Your task to perform on an android device: toggle improve location accuracy Image 0: 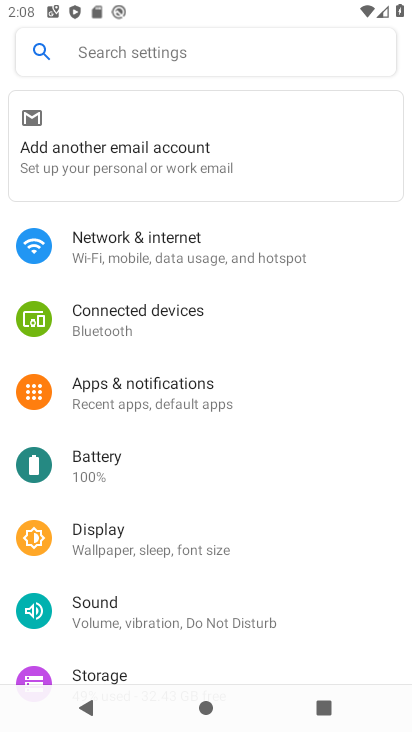
Step 0: drag from (173, 621) to (201, 190)
Your task to perform on an android device: toggle improve location accuracy Image 1: 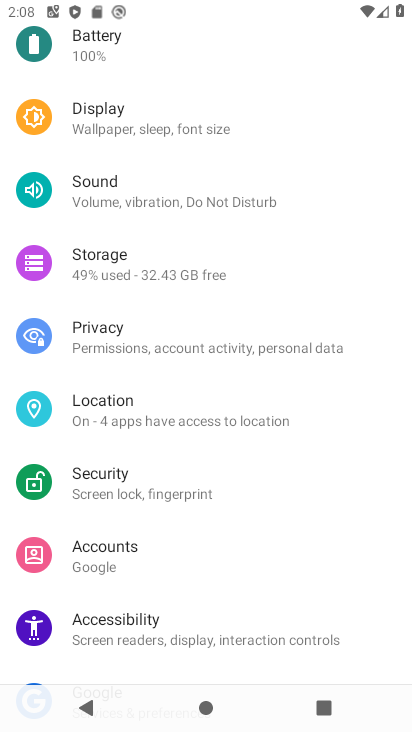
Step 1: click (153, 411)
Your task to perform on an android device: toggle improve location accuracy Image 2: 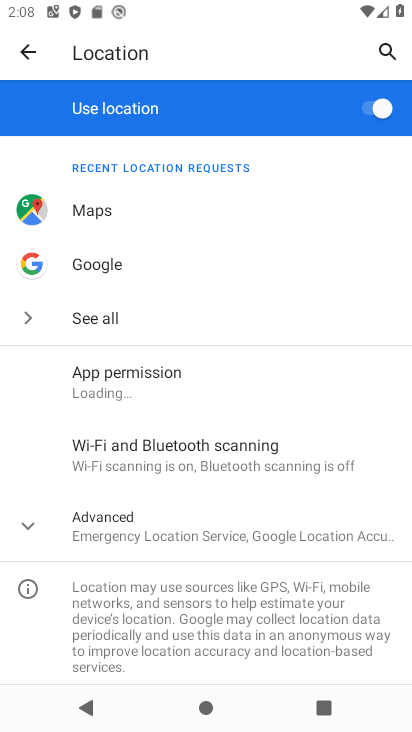
Step 2: click (88, 522)
Your task to perform on an android device: toggle improve location accuracy Image 3: 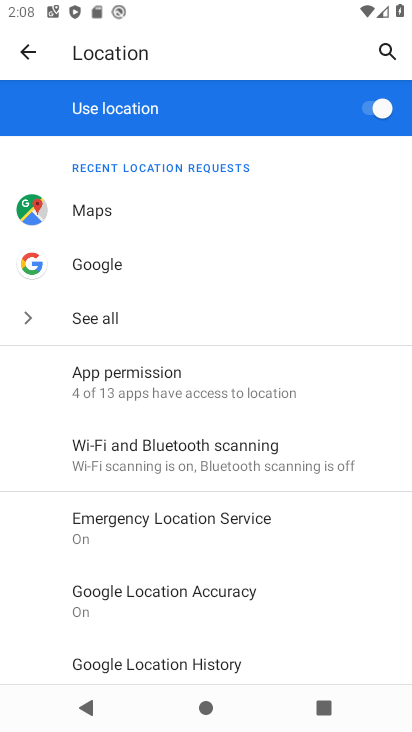
Step 3: click (227, 597)
Your task to perform on an android device: toggle improve location accuracy Image 4: 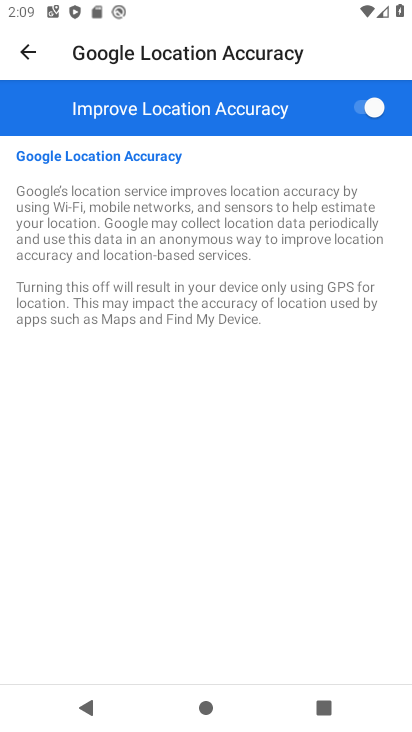
Step 4: task complete